Your task to perform on an android device: all mails in gmail Image 0: 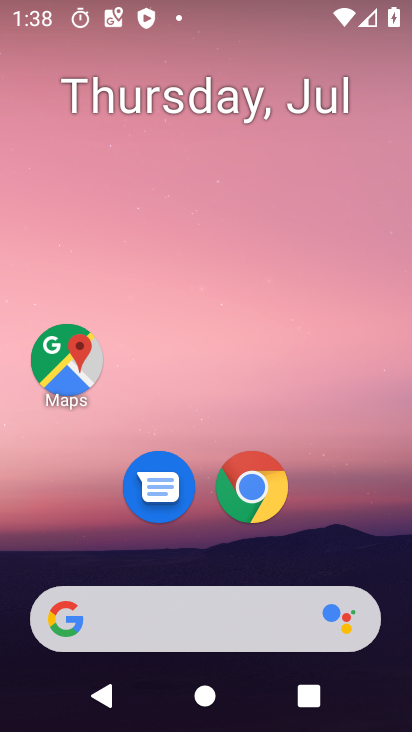
Step 0: drag from (242, 649) to (286, 164)
Your task to perform on an android device: all mails in gmail Image 1: 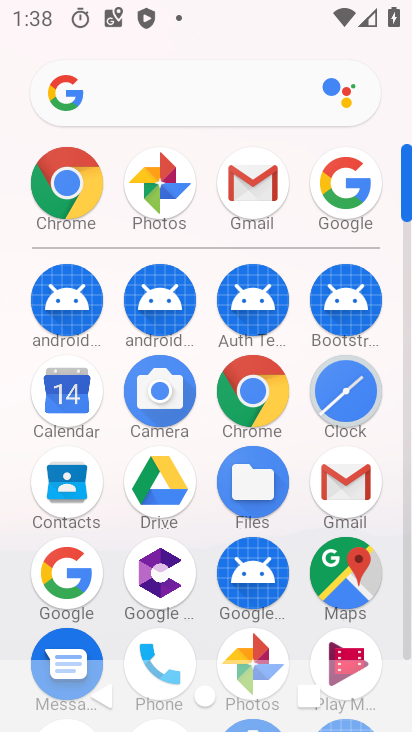
Step 1: click (262, 188)
Your task to perform on an android device: all mails in gmail Image 2: 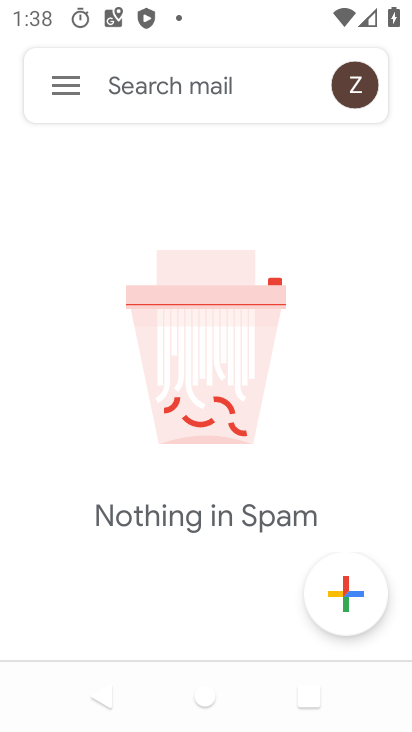
Step 2: click (63, 100)
Your task to perform on an android device: all mails in gmail Image 3: 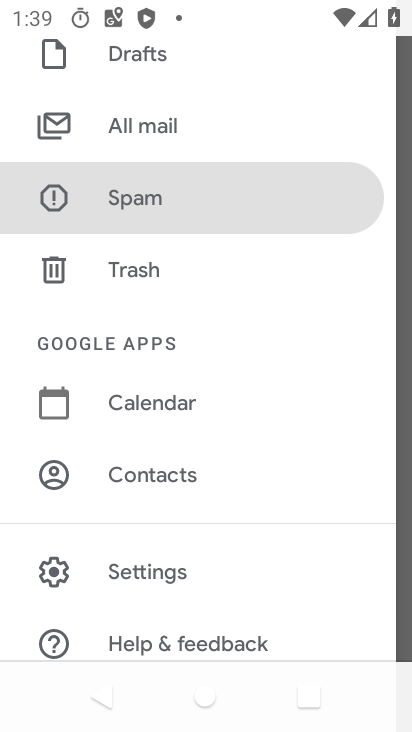
Step 3: click (200, 116)
Your task to perform on an android device: all mails in gmail Image 4: 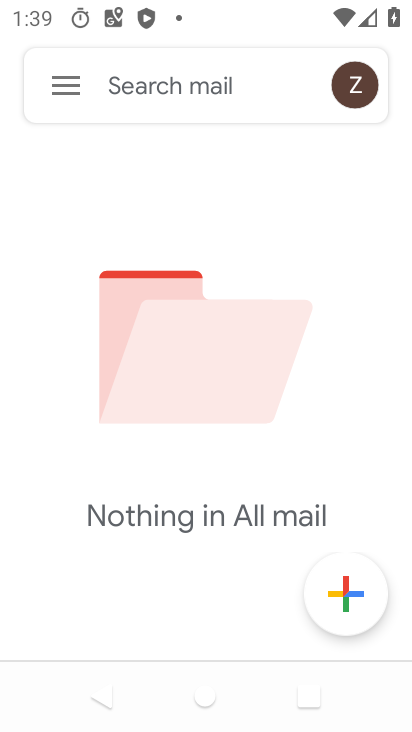
Step 4: task complete